Your task to perform on an android device: What's on my calendar tomorrow? Image 0: 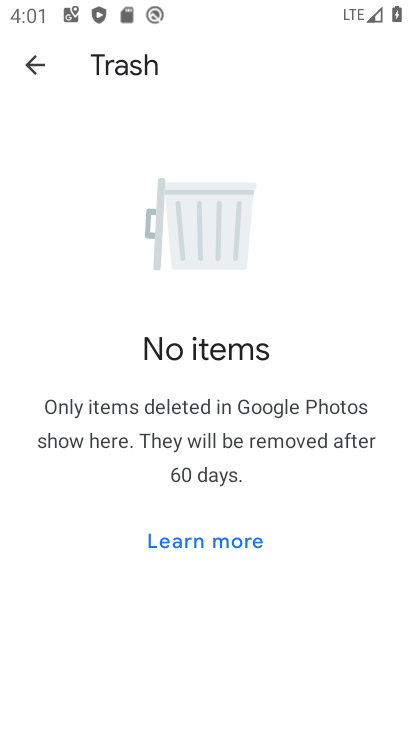
Step 0: press home button
Your task to perform on an android device: What's on my calendar tomorrow? Image 1: 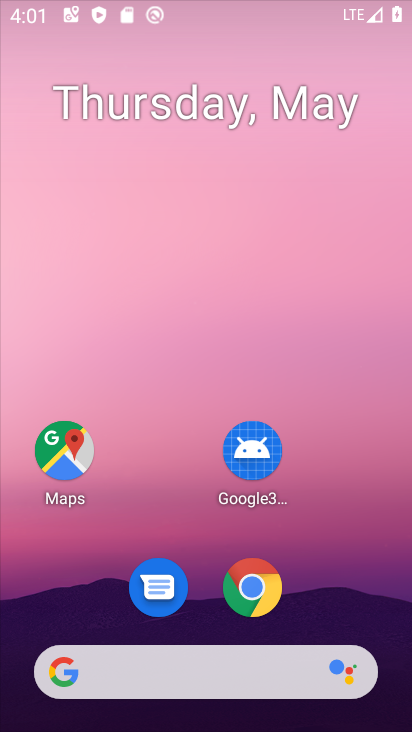
Step 1: drag from (267, 631) to (210, 65)
Your task to perform on an android device: What's on my calendar tomorrow? Image 2: 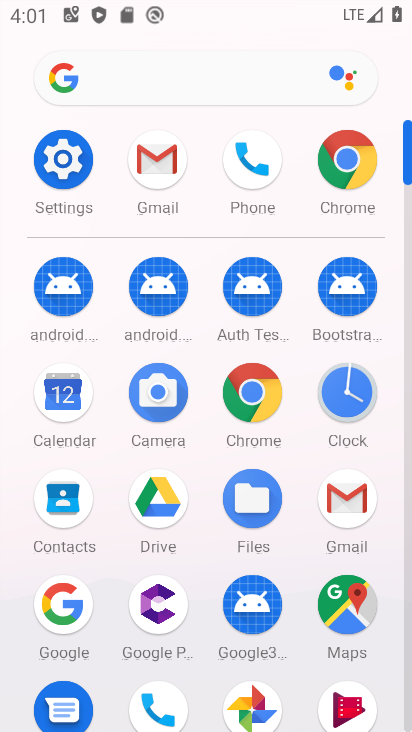
Step 2: click (66, 429)
Your task to perform on an android device: What's on my calendar tomorrow? Image 3: 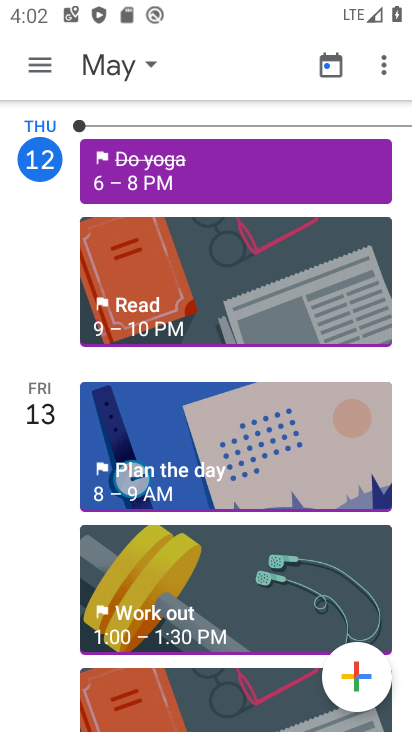
Step 3: task complete